Your task to perform on an android device: delete the emails in spam in the gmail app Image 0: 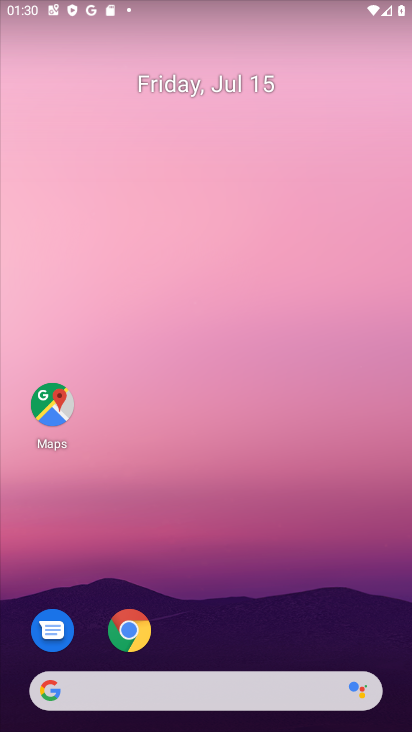
Step 0: drag from (232, 638) to (244, 224)
Your task to perform on an android device: delete the emails in spam in the gmail app Image 1: 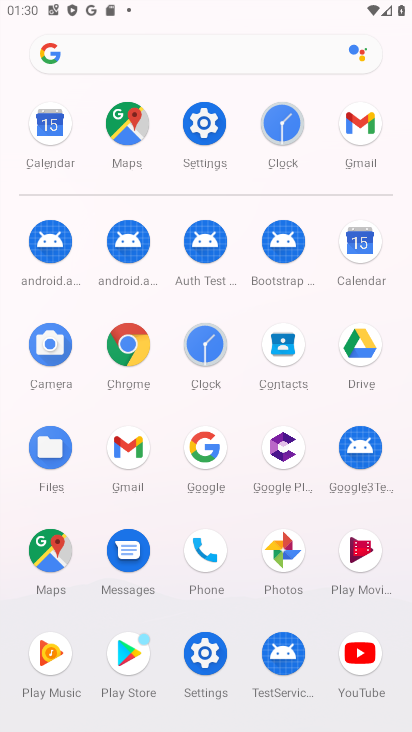
Step 1: click (369, 155)
Your task to perform on an android device: delete the emails in spam in the gmail app Image 2: 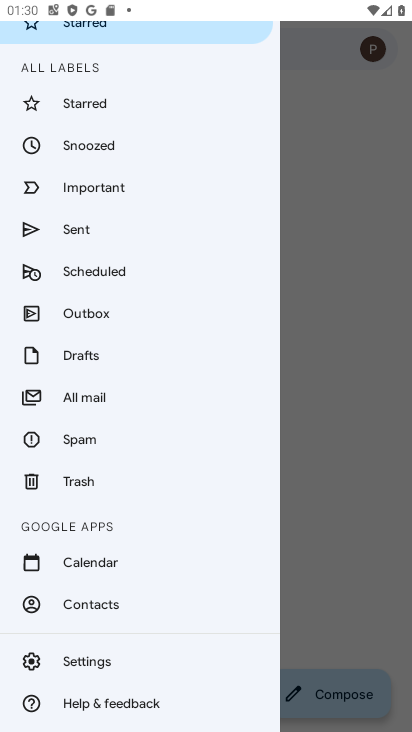
Step 2: click (78, 446)
Your task to perform on an android device: delete the emails in spam in the gmail app Image 3: 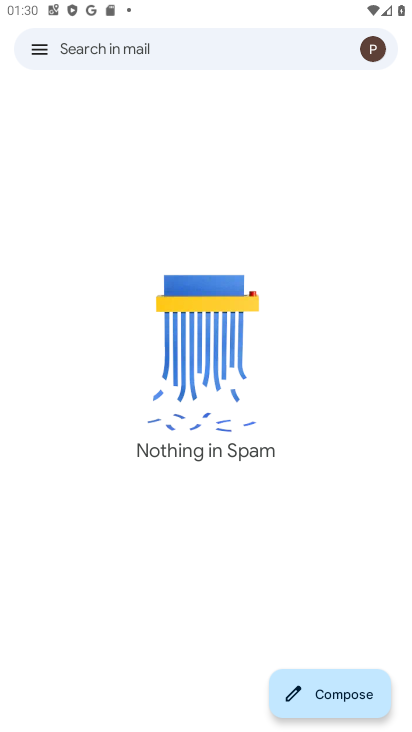
Step 3: task complete